Your task to perform on an android device: Open accessibility settings Image 0: 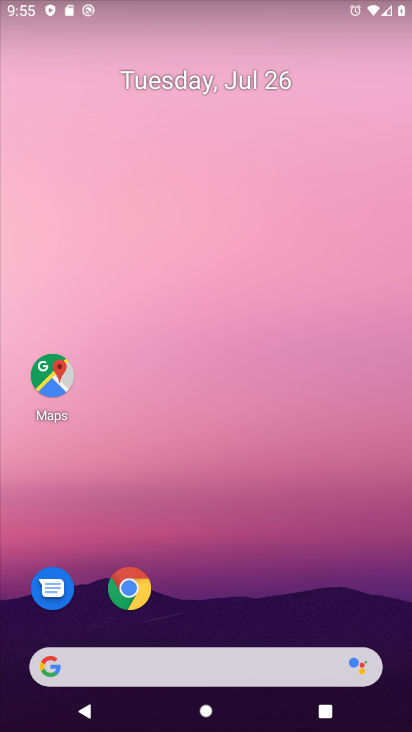
Step 0: drag from (243, 574) to (287, 51)
Your task to perform on an android device: Open accessibility settings Image 1: 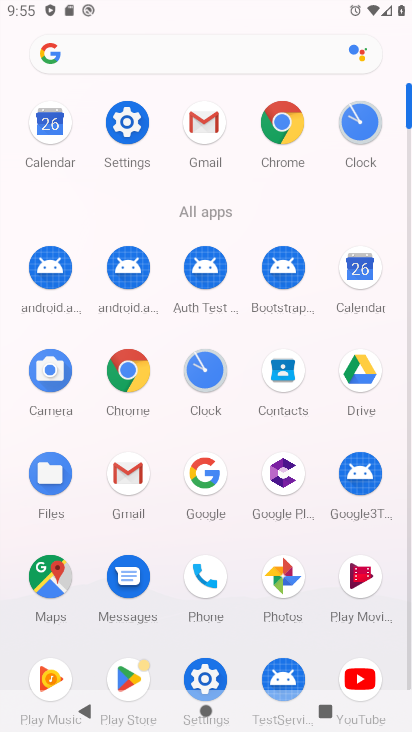
Step 1: click (133, 123)
Your task to perform on an android device: Open accessibility settings Image 2: 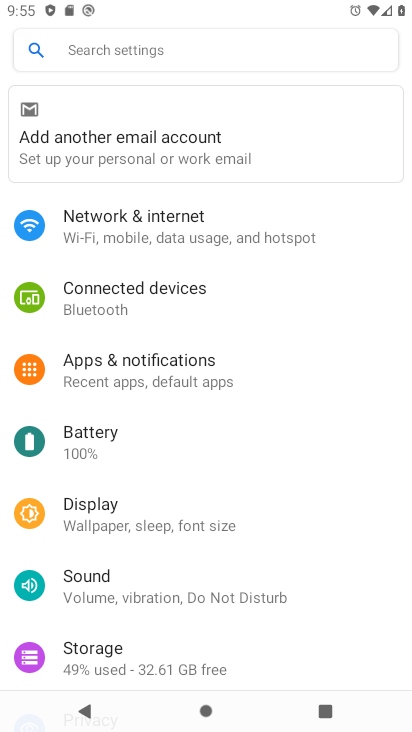
Step 2: drag from (172, 640) to (261, 61)
Your task to perform on an android device: Open accessibility settings Image 3: 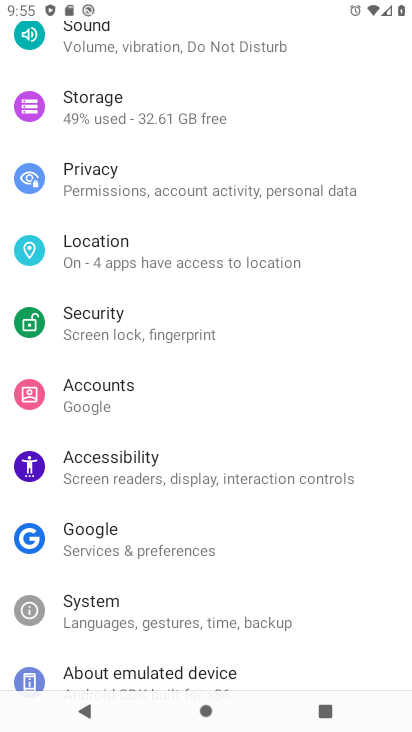
Step 3: click (127, 472)
Your task to perform on an android device: Open accessibility settings Image 4: 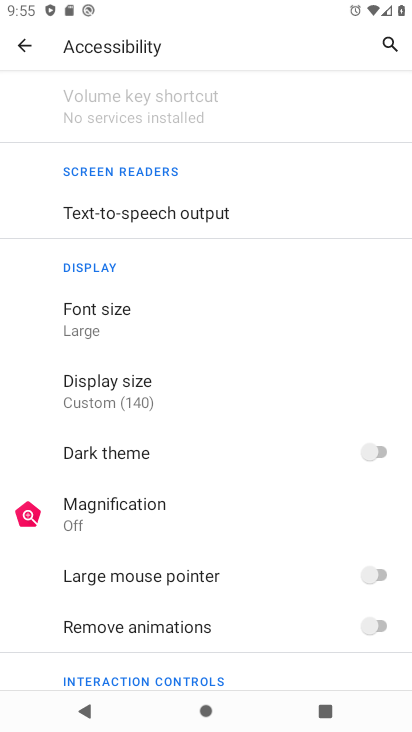
Step 4: task complete